Your task to perform on an android device: change text size in settings app Image 0: 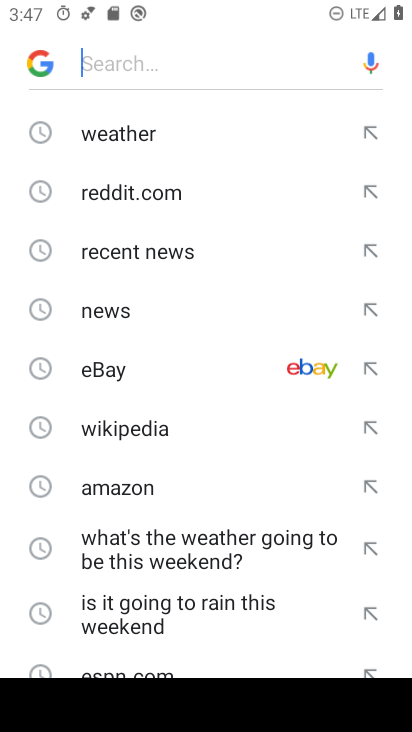
Step 0: press home button
Your task to perform on an android device: change text size in settings app Image 1: 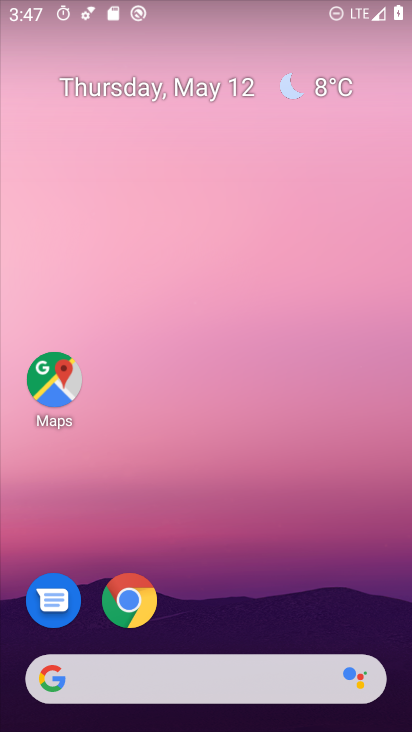
Step 1: drag from (194, 730) to (196, 244)
Your task to perform on an android device: change text size in settings app Image 2: 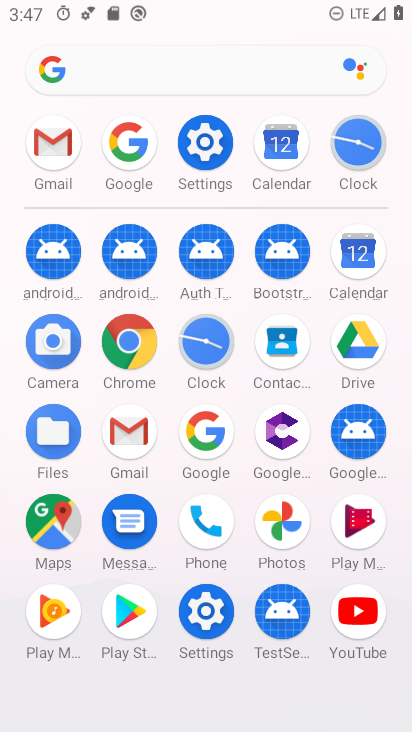
Step 2: click (212, 146)
Your task to perform on an android device: change text size in settings app Image 3: 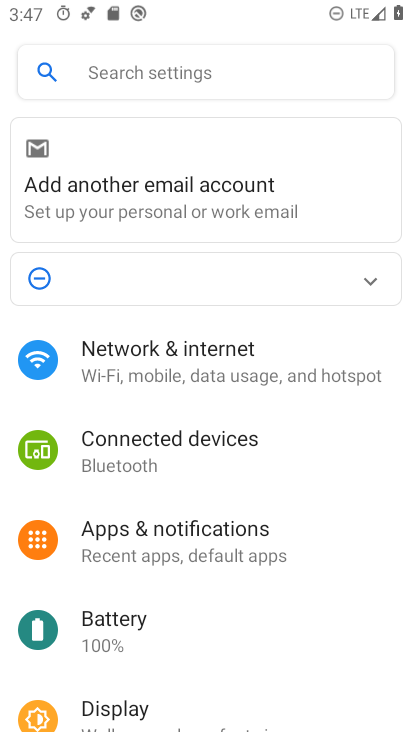
Step 3: drag from (193, 651) to (195, 301)
Your task to perform on an android device: change text size in settings app Image 4: 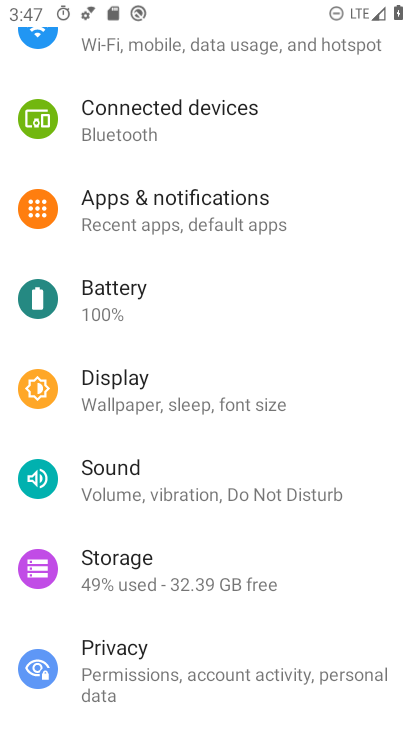
Step 4: click (218, 404)
Your task to perform on an android device: change text size in settings app Image 5: 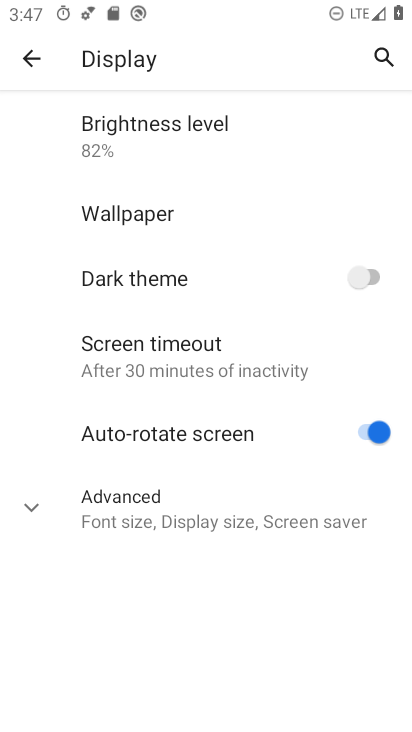
Step 5: click (158, 504)
Your task to perform on an android device: change text size in settings app Image 6: 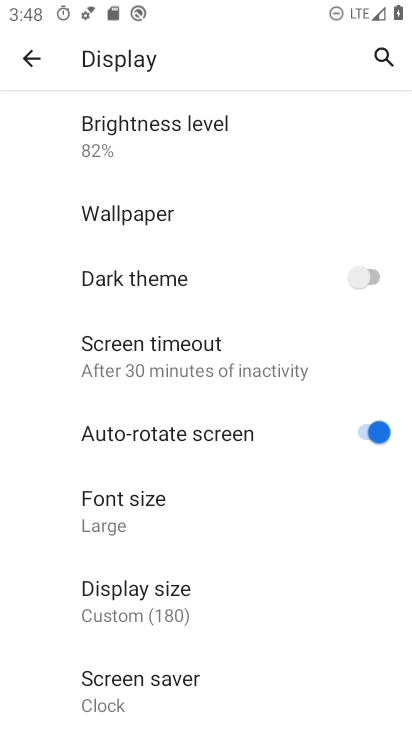
Step 6: click (115, 505)
Your task to perform on an android device: change text size in settings app Image 7: 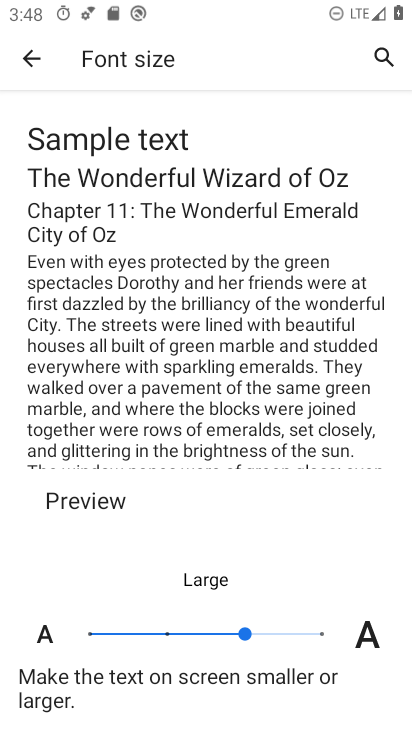
Step 7: click (166, 632)
Your task to perform on an android device: change text size in settings app Image 8: 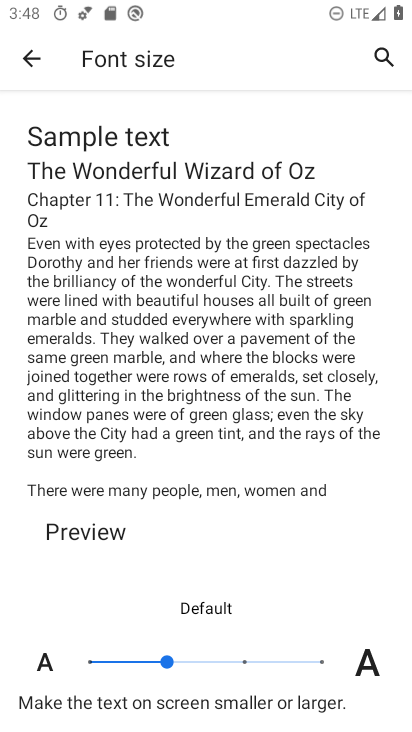
Step 8: task complete